Your task to perform on an android device: turn off data saver in the chrome app Image 0: 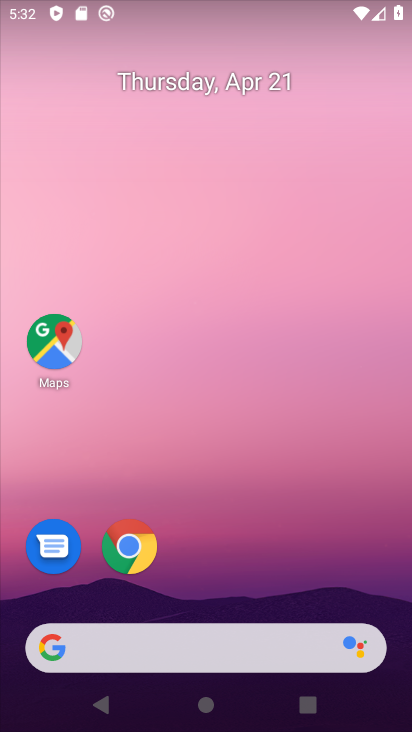
Step 0: click (112, 558)
Your task to perform on an android device: turn off data saver in the chrome app Image 1: 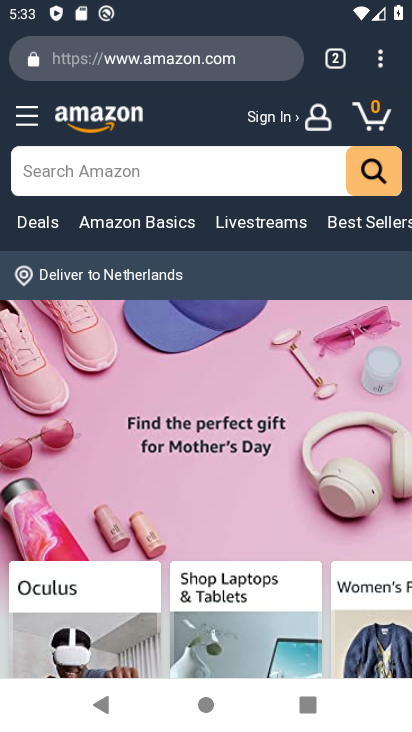
Step 1: click (384, 58)
Your task to perform on an android device: turn off data saver in the chrome app Image 2: 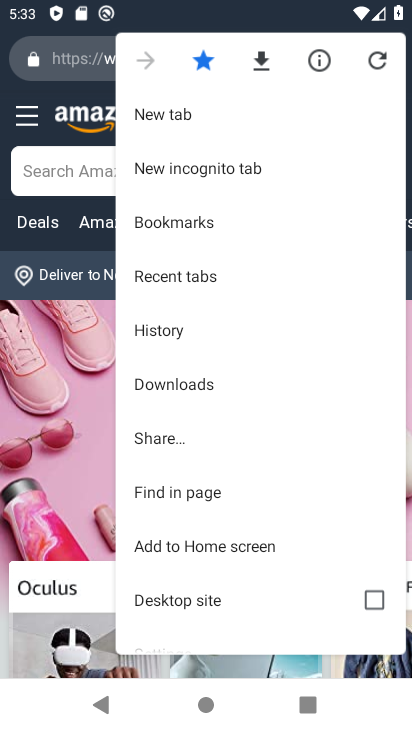
Step 2: drag from (181, 604) to (200, 89)
Your task to perform on an android device: turn off data saver in the chrome app Image 3: 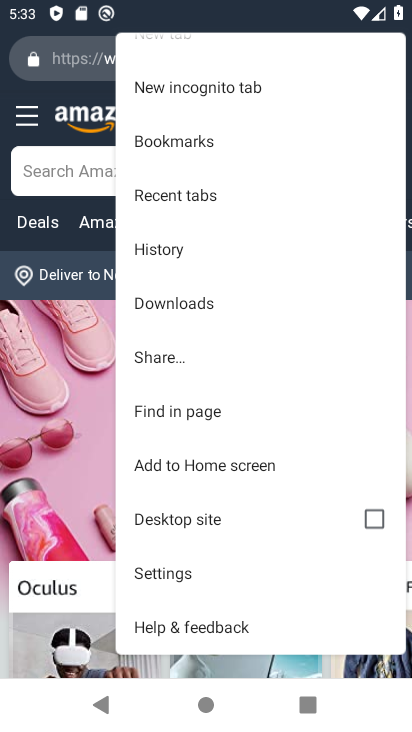
Step 3: click (175, 568)
Your task to perform on an android device: turn off data saver in the chrome app Image 4: 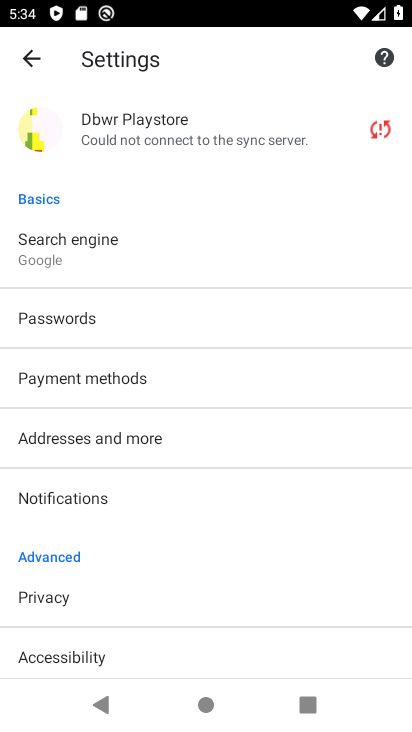
Step 4: drag from (145, 525) to (155, 121)
Your task to perform on an android device: turn off data saver in the chrome app Image 5: 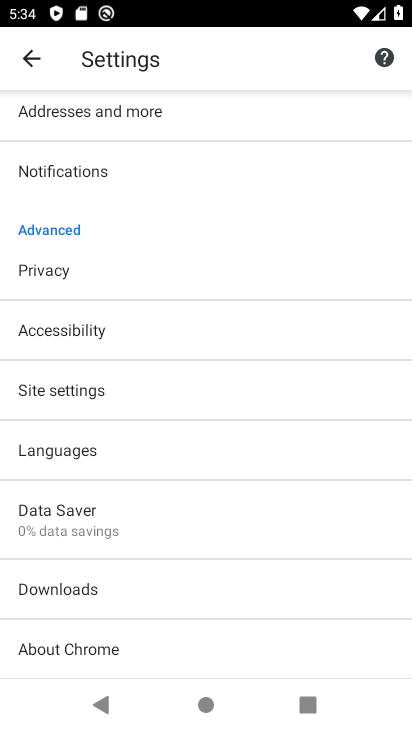
Step 5: click (149, 515)
Your task to perform on an android device: turn off data saver in the chrome app Image 6: 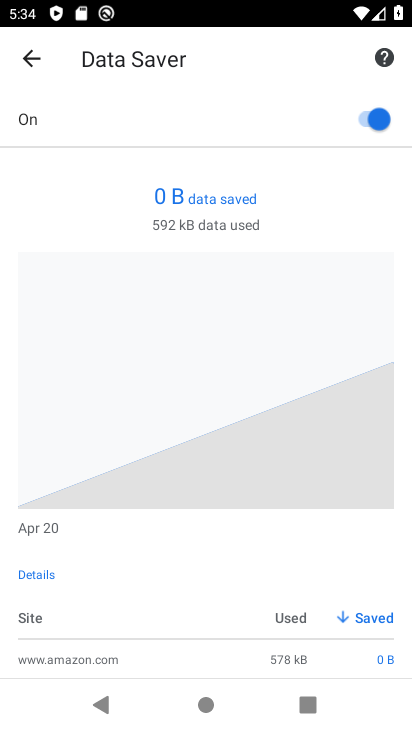
Step 6: click (376, 116)
Your task to perform on an android device: turn off data saver in the chrome app Image 7: 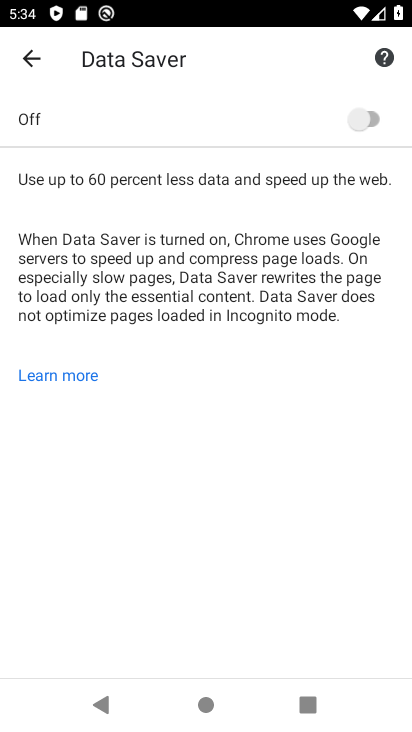
Step 7: task complete